Your task to perform on an android device: Clear the cart on walmart.com. Image 0: 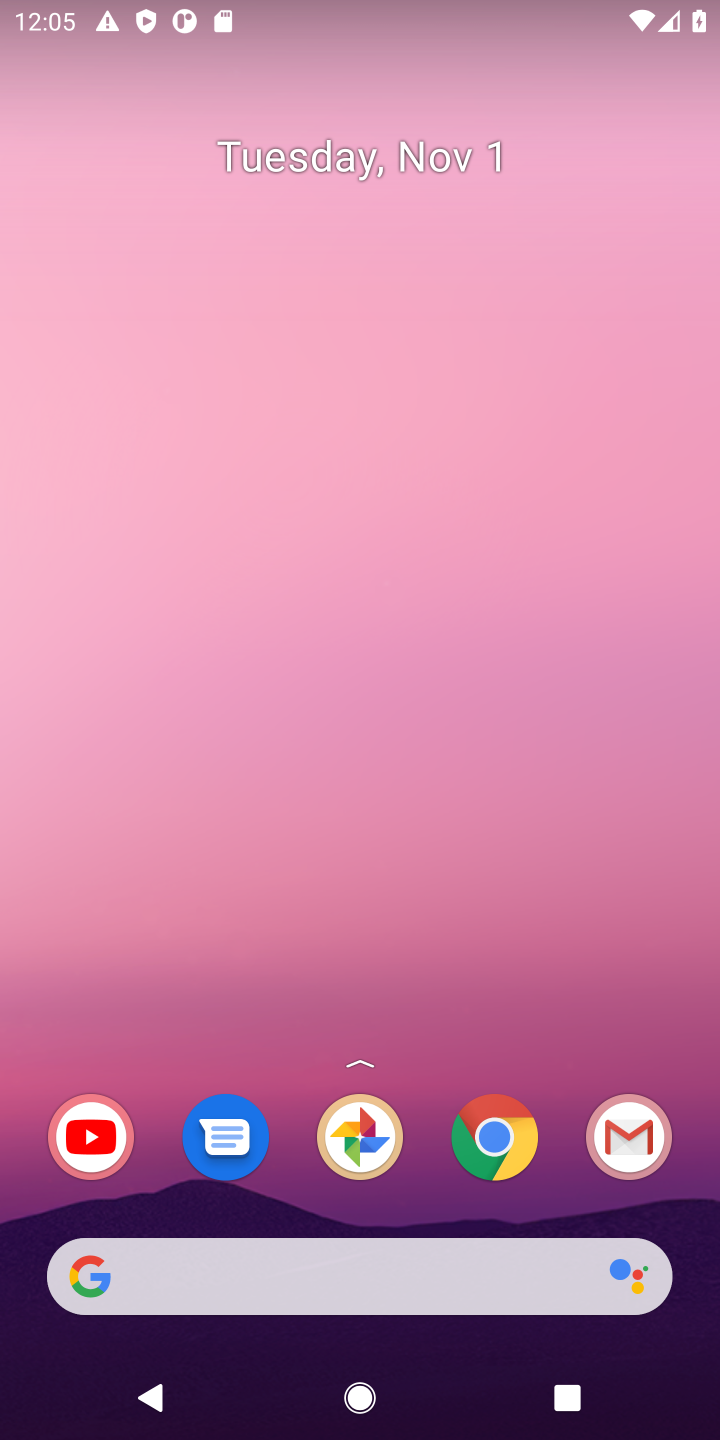
Step 0: click (491, 1136)
Your task to perform on an android device: Clear the cart on walmart.com. Image 1: 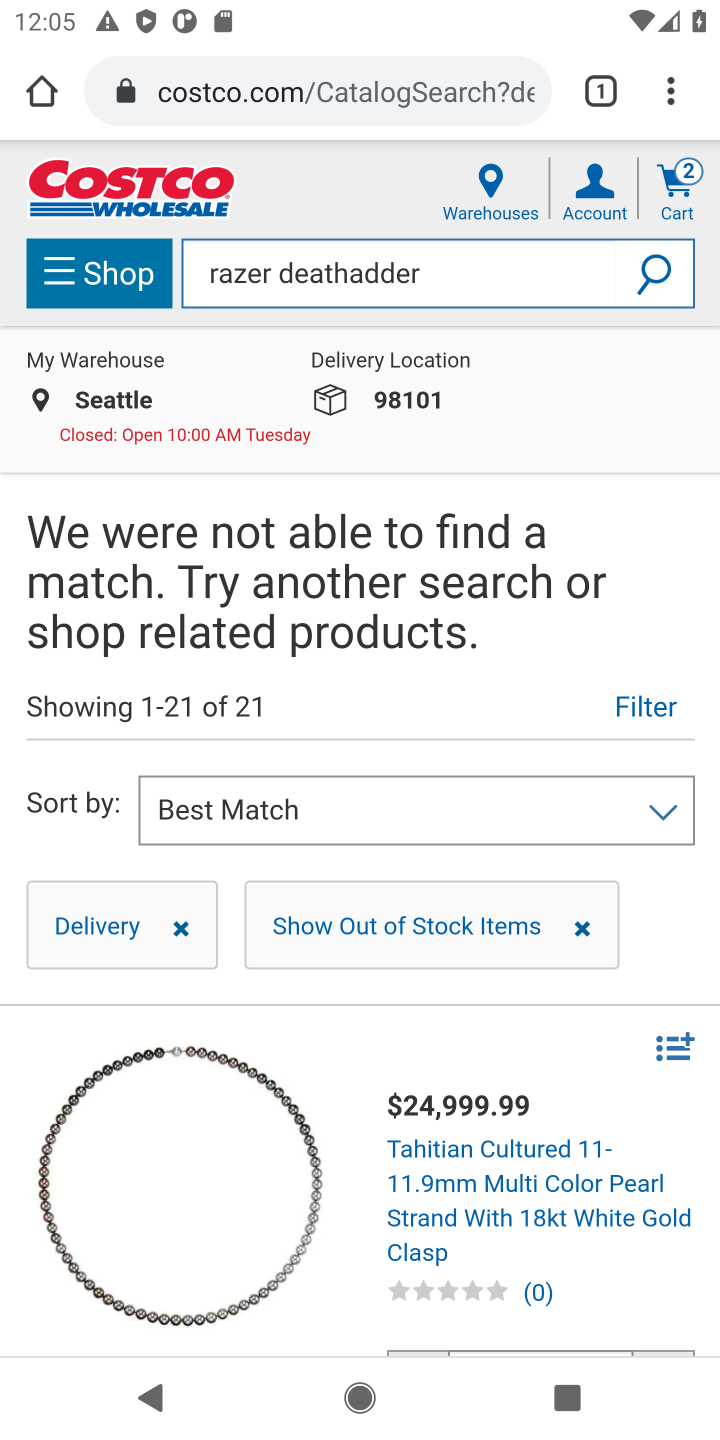
Step 1: click (416, 89)
Your task to perform on an android device: Clear the cart on walmart.com. Image 2: 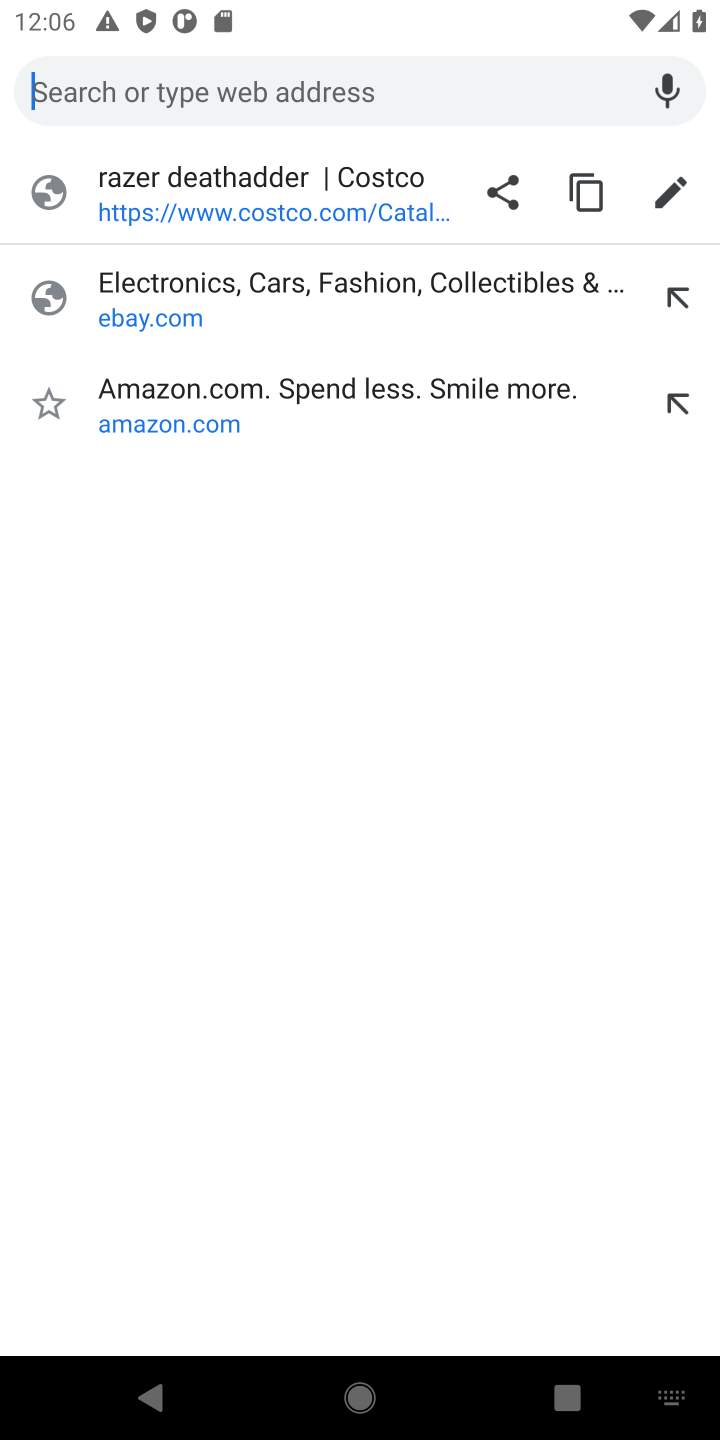
Step 2: type "walmart.com"
Your task to perform on an android device: Clear the cart on walmart.com. Image 3: 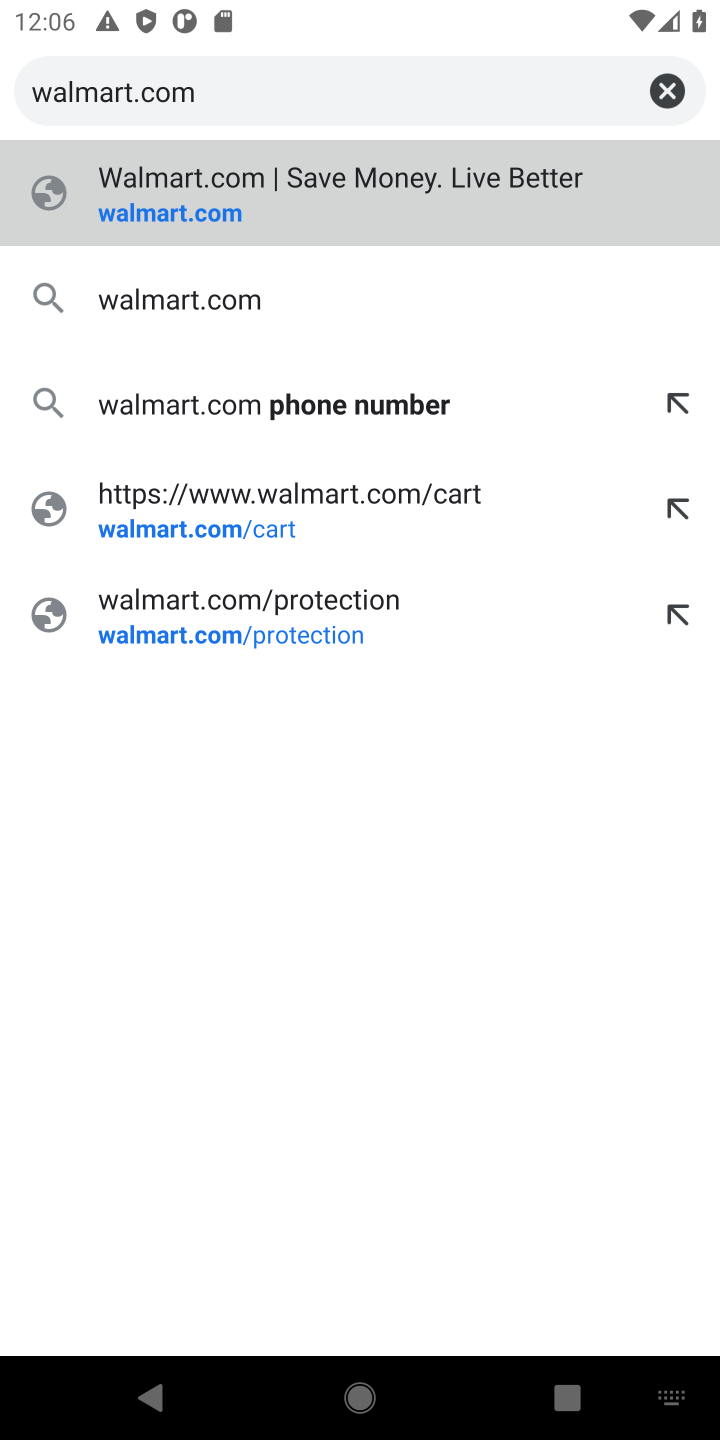
Step 3: click (210, 299)
Your task to perform on an android device: Clear the cart on walmart.com. Image 4: 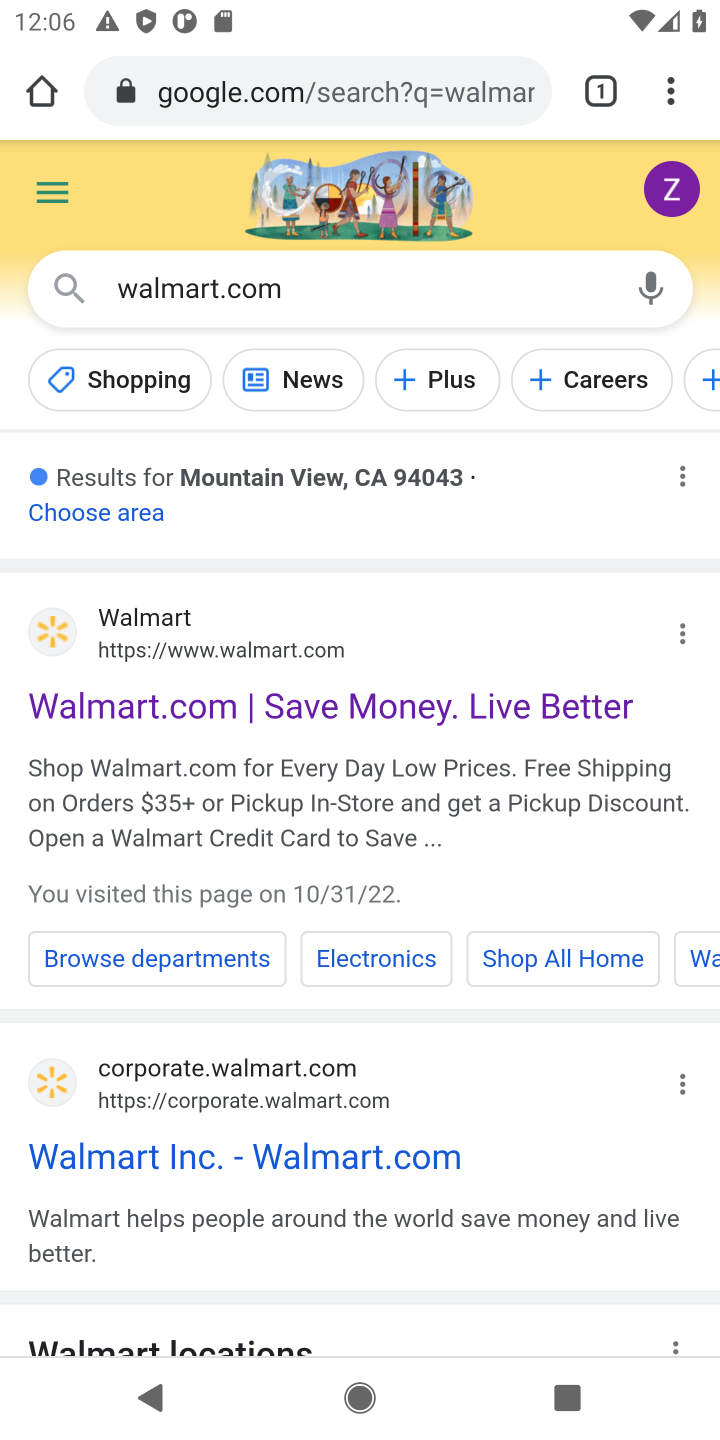
Step 4: click (312, 699)
Your task to perform on an android device: Clear the cart on walmart.com. Image 5: 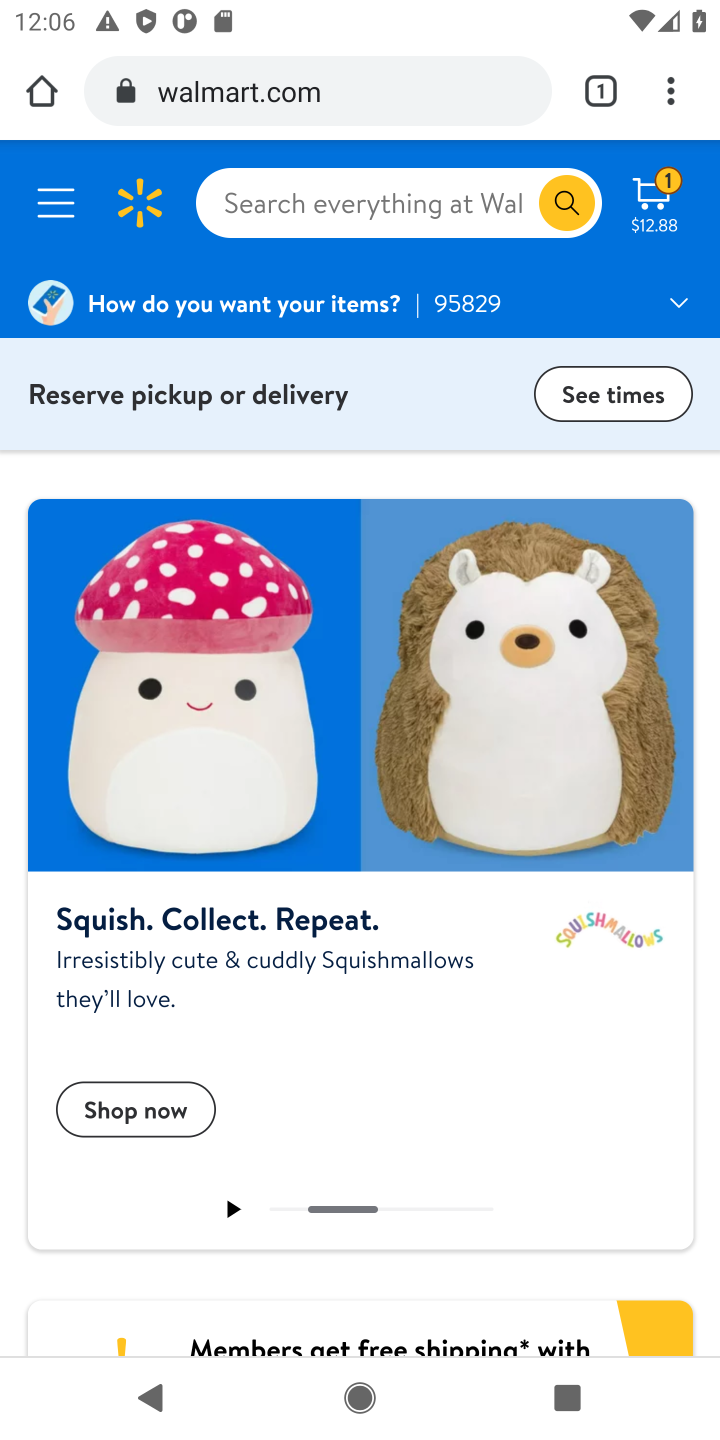
Step 5: click (660, 194)
Your task to perform on an android device: Clear the cart on walmart.com. Image 6: 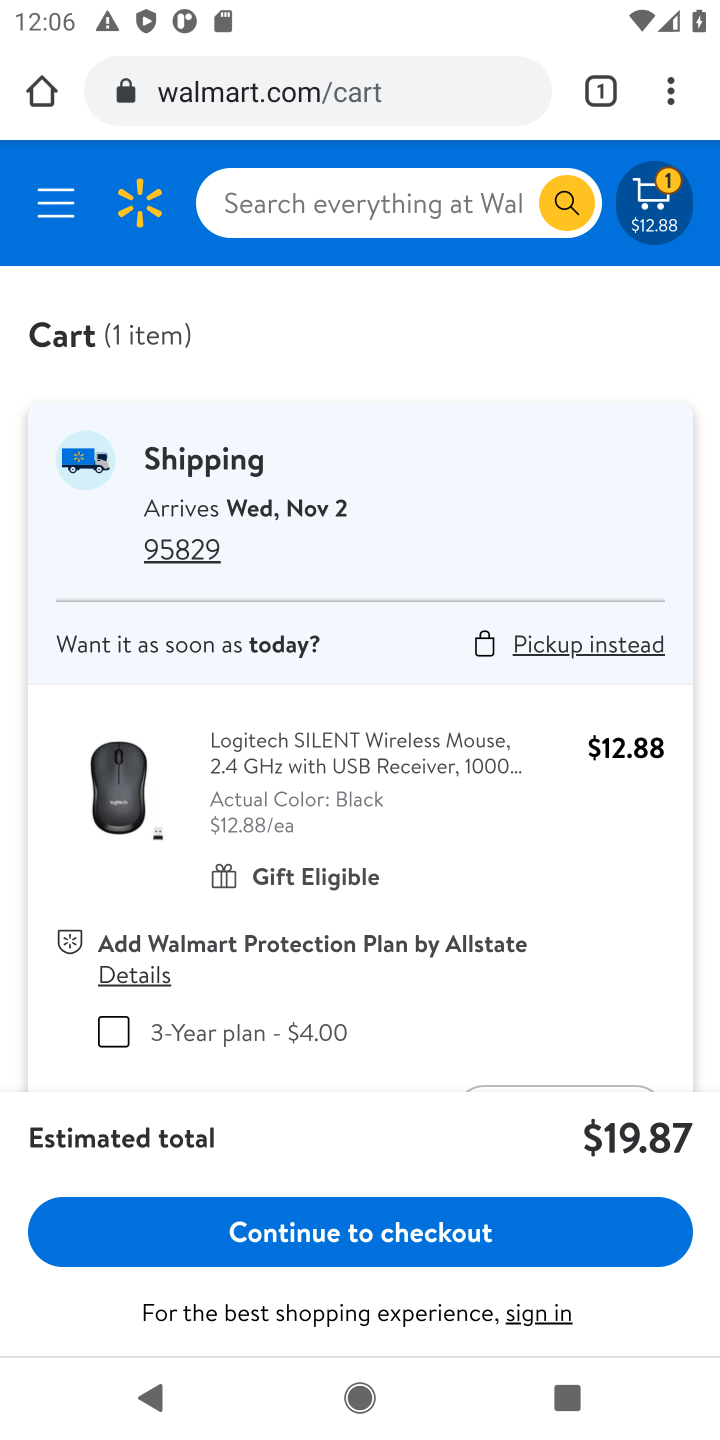
Step 6: drag from (540, 1025) to (565, 530)
Your task to perform on an android device: Clear the cart on walmart.com. Image 7: 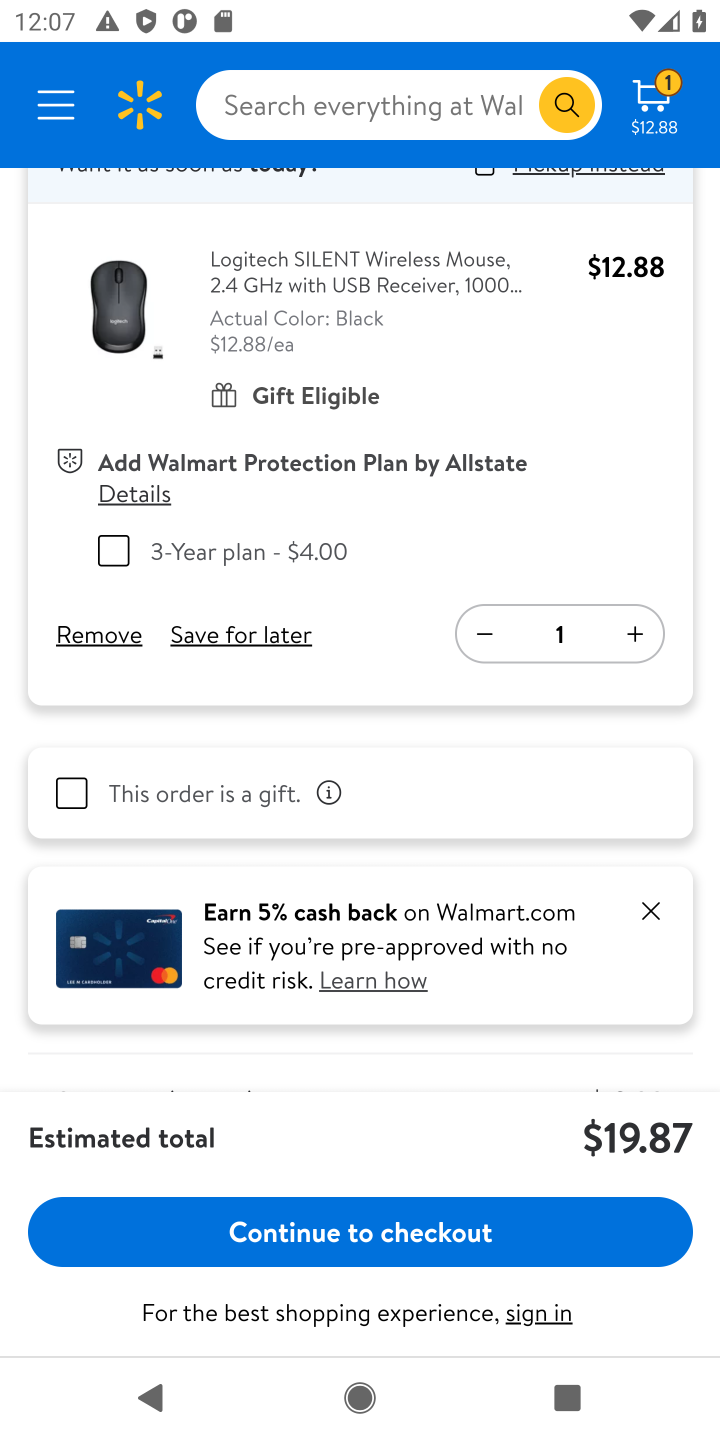
Step 7: click (98, 639)
Your task to perform on an android device: Clear the cart on walmart.com. Image 8: 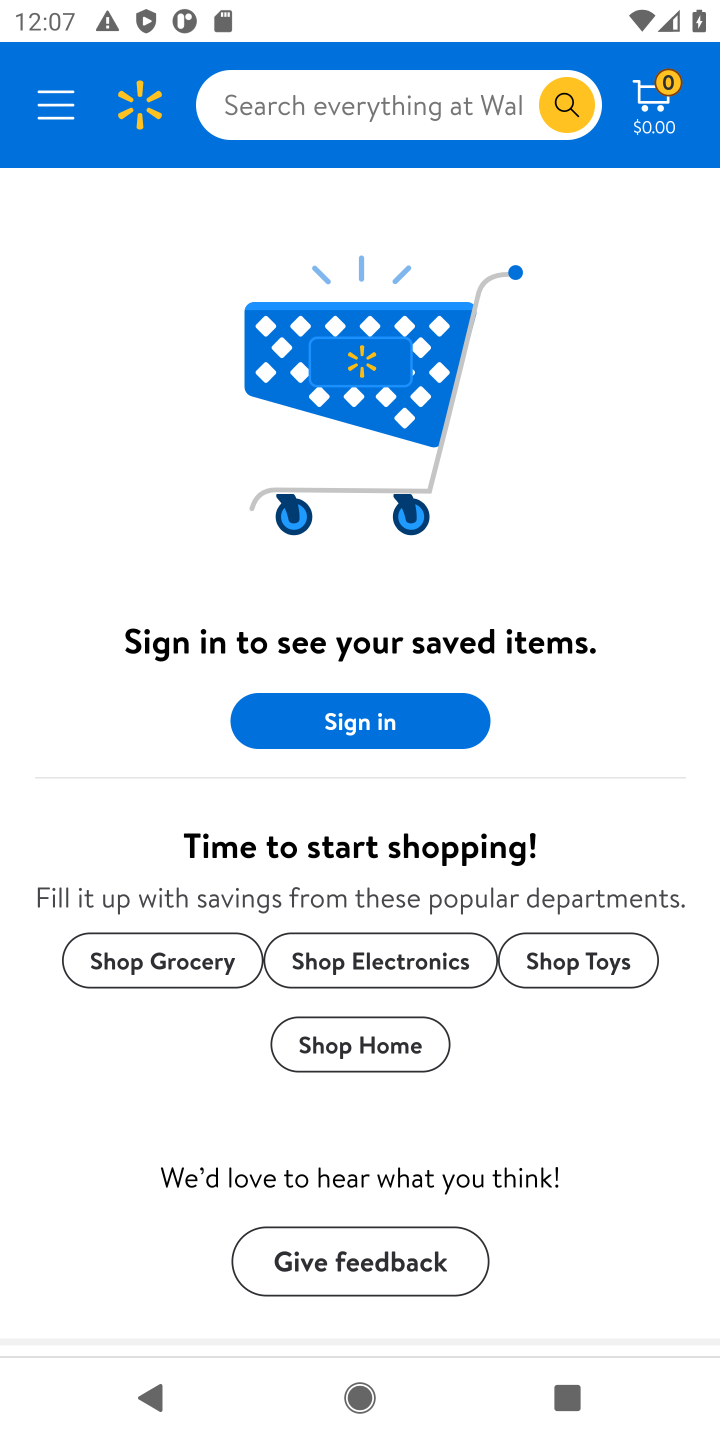
Step 8: task complete